Your task to perform on an android device: See recent photos Image 0: 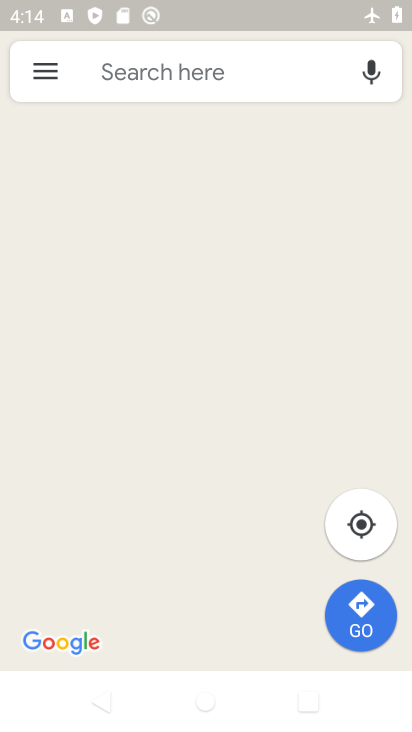
Step 0: press home button
Your task to perform on an android device: See recent photos Image 1: 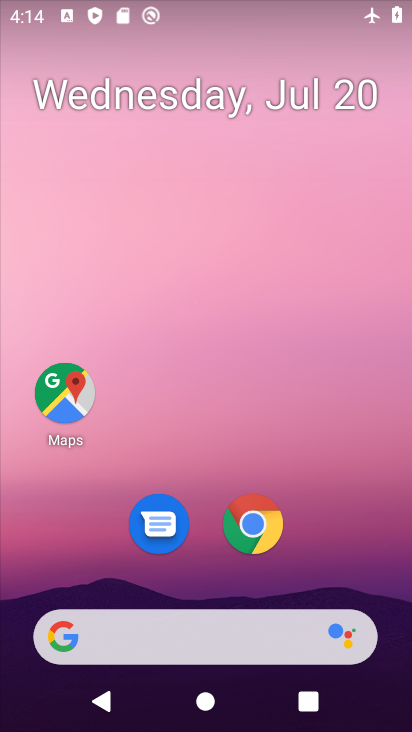
Step 1: drag from (212, 458) to (252, 12)
Your task to perform on an android device: See recent photos Image 2: 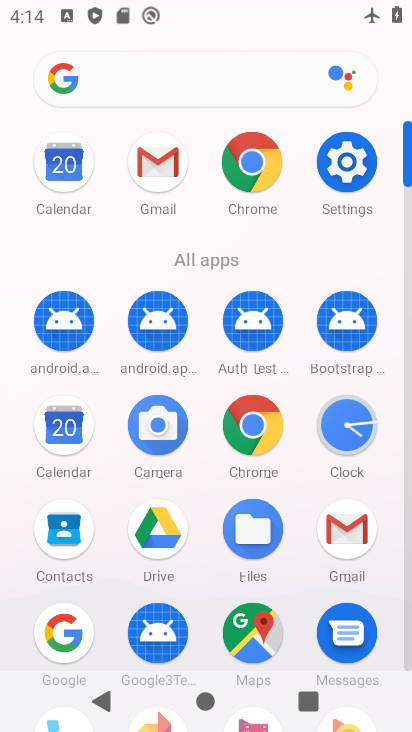
Step 2: drag from (192, 477) to (217, 143)
Your task to perform on an android device: See recent photos Image 3: 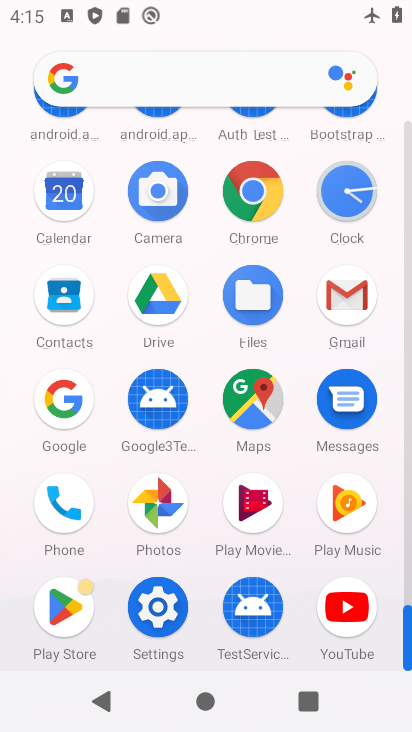
Step 3: click (162, 505)
Your task to perform on an android device: See recent photos Image 4: 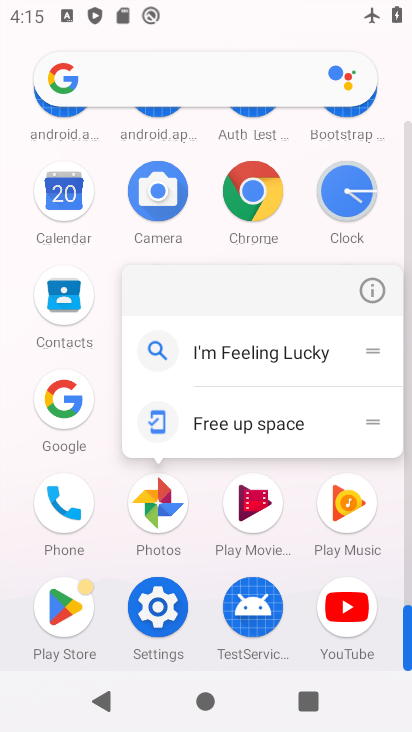
Step 4: click (162, 503)
Your task to perform on an android device: See recent photos Image 5: 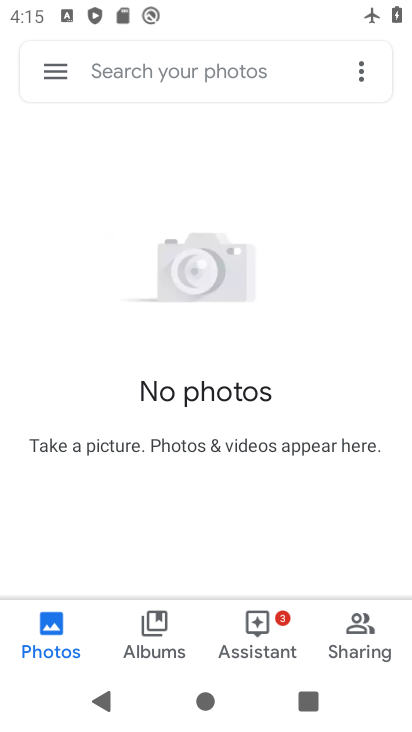
Step 5: task complete